Your task to perform on an android device: turn off data saver in the chrome app Image 0: 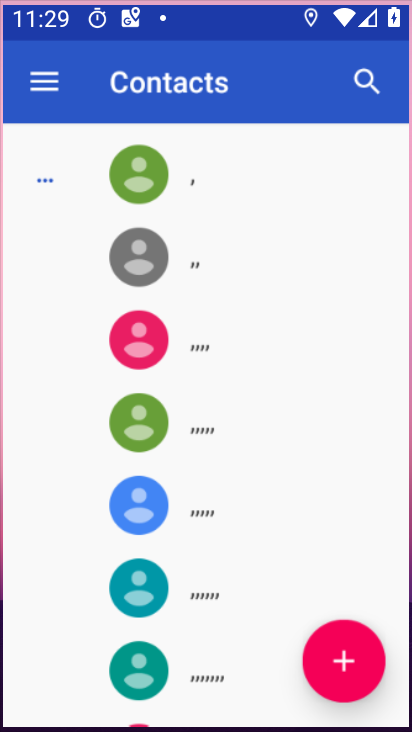
Step 0: drag from (328, 589) to (236, 70)
Your task to perform on an android device: turn off data saver in the chrome app Image 1: 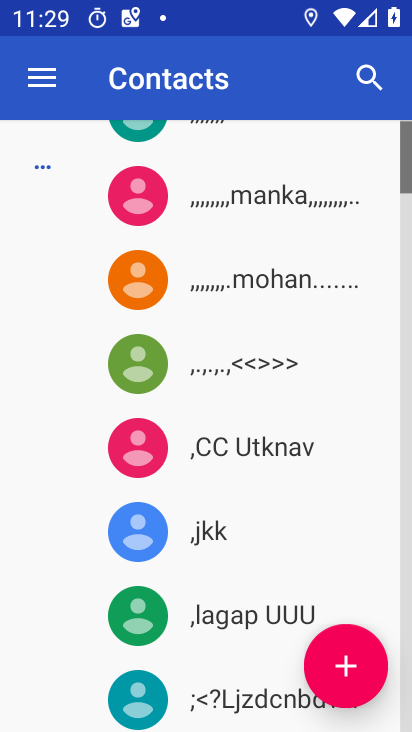
Step 1: press home button
Your task to perform on an android device: turn off data saver in the chrome app Image 2: 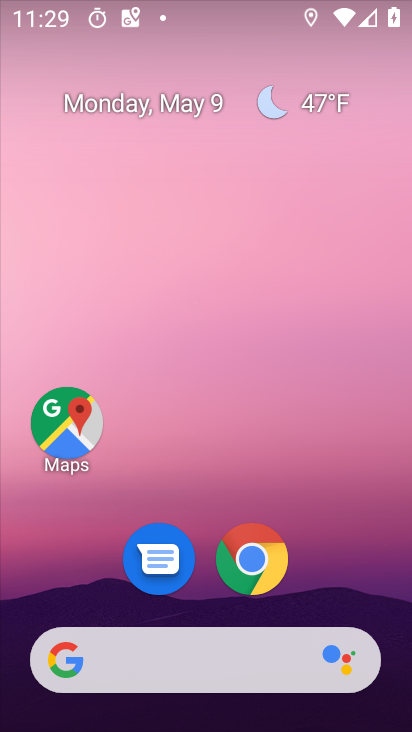
Step 2: drag from (342, 577) to (327, 27)
Your task to perform on an android device: turn off data saver in the chrome app Image 3: 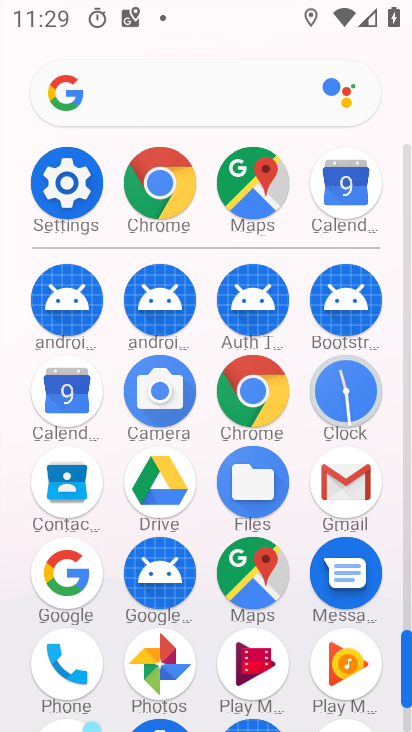
Step 3: click (231, 394)
Your task to perform on an android device: turn off data saver in the chrome app Image 4: 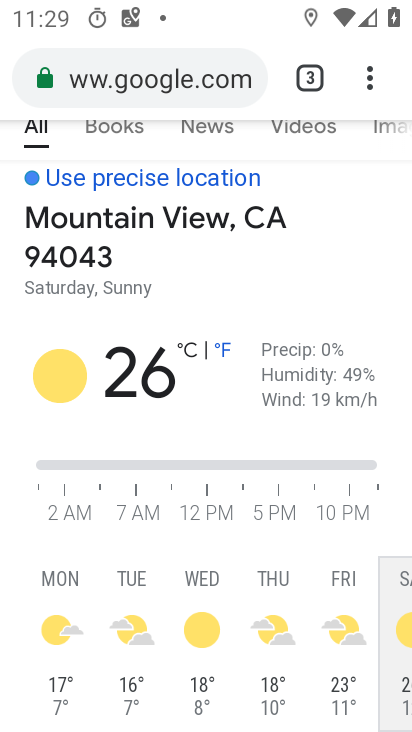
Step 4: drag from (368, 80) to (162, 603)
Your task to perform on an android device: turn off data saver in the chrome app Image 5: 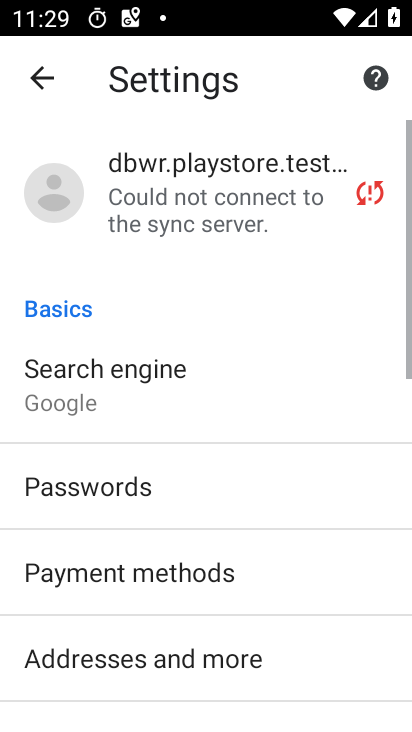
Step 5: drag from (191, 602) to (237, 265)
Your task to perform on an android device: turn off data saver in the chrome app Image 6: 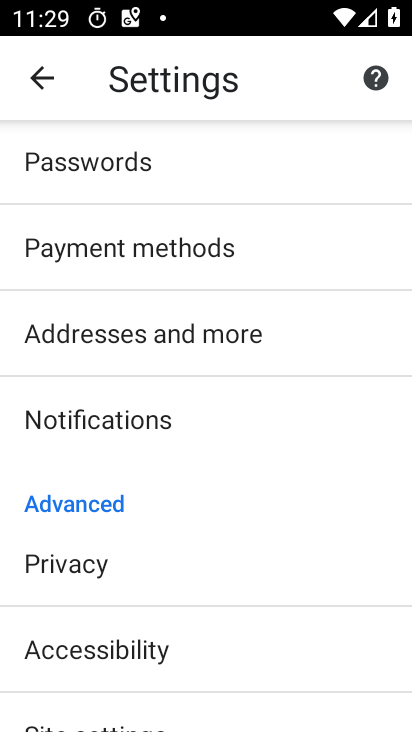
Step 6: drag from (297, 489) to (297, 279)
Your task to perform on an android device: turn off data saver in the chrome app Image 7: 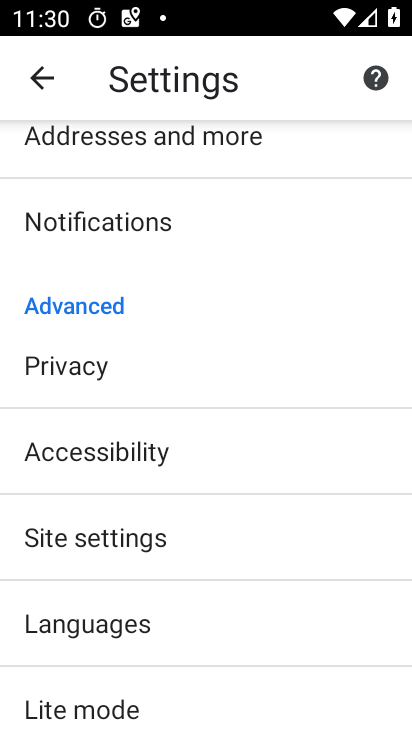
Step 7: drag from (181, 612) to (192, 405)
Your task to perform on an android device: turn off data saver in the chrome app Image 8: 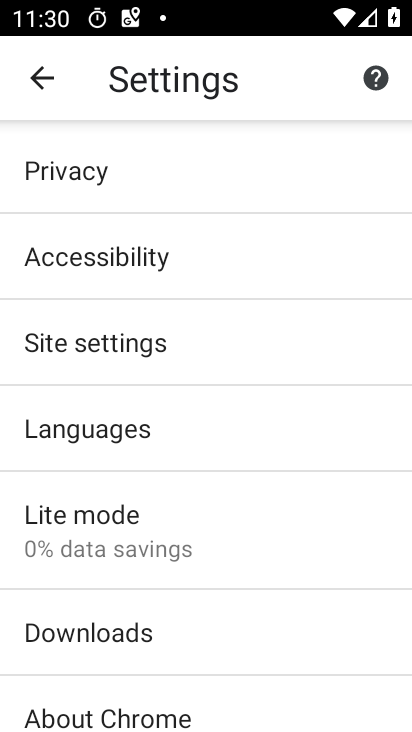
Step 8: click (162, 539)
Your task to perform on an android device: turn off data saver in the chrome app Image 9: 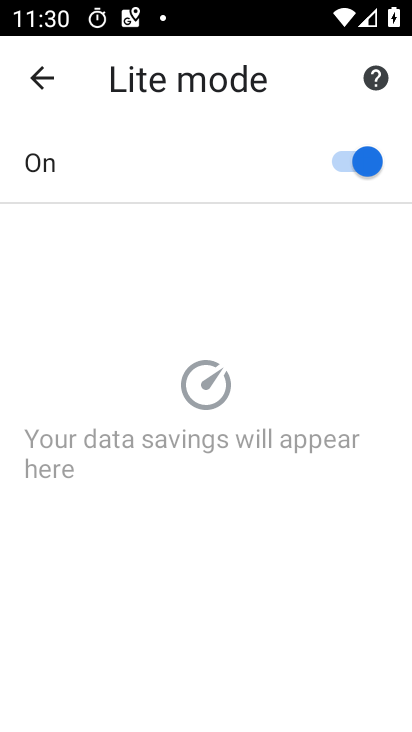
Step 9: click (348, 169)
Your task to perform on an android device: turn off data saver in the chrome app Image 10: 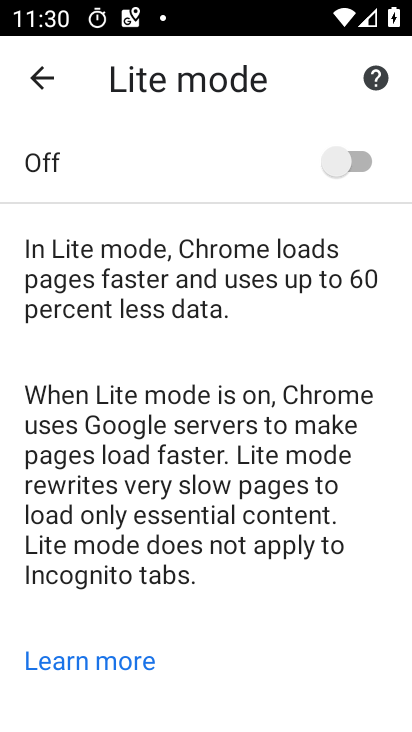
Step 10: task complete